Your task to perform on an android device: find which apps use the phone's location Image 0: 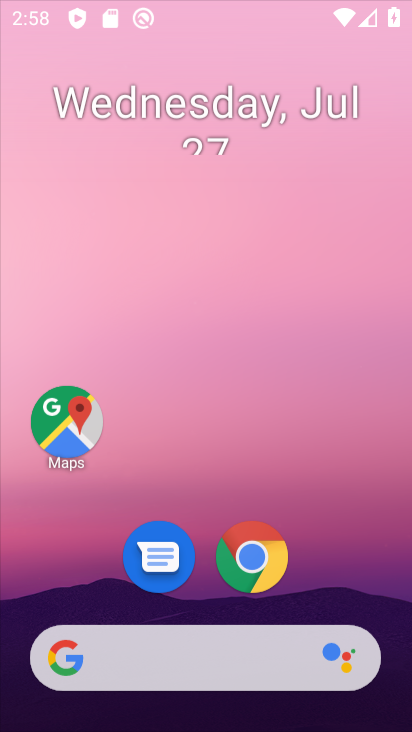
Step 0: drag from (182, 306) to (228, 49)
Your task to perform on an android device: find which apps use the phone's location Image 1: 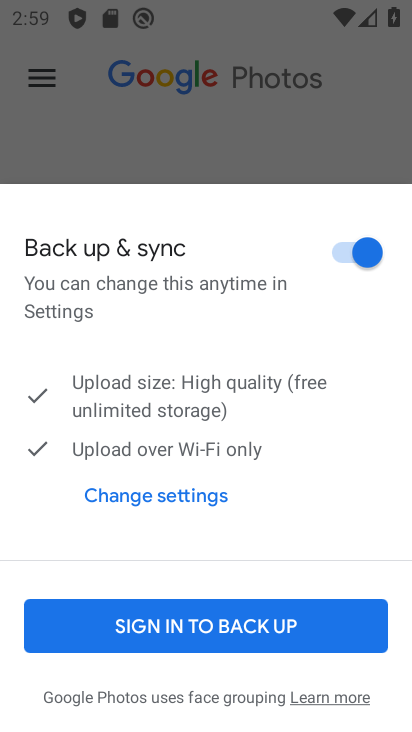
Step 1: press back button
Your task to perform on an android device: find which apps use the phone's location Image 2: 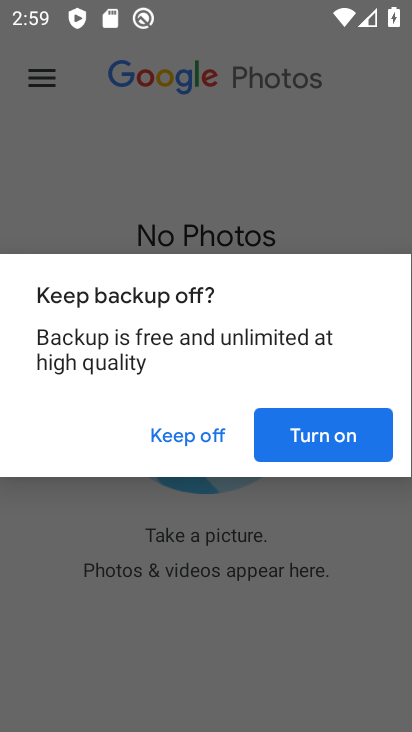
Step 2: press home button
Your task to perform on an android device: find which apps use the phone's location Image 3: 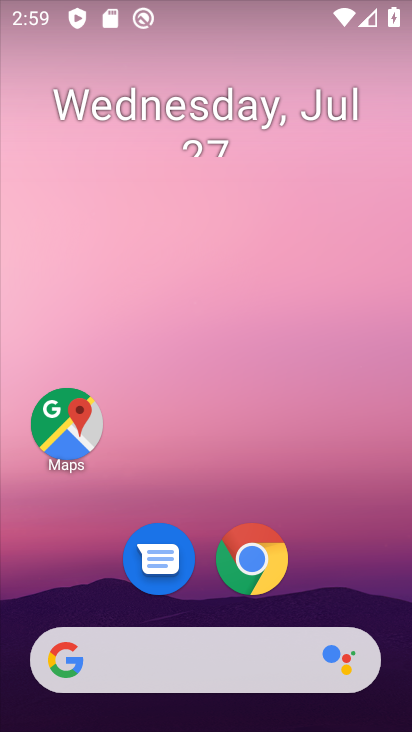
Step 3: drag from (83, 584) to (186, 52)
Your task to perform on an android device: find which apps use the phone's location Image 4: 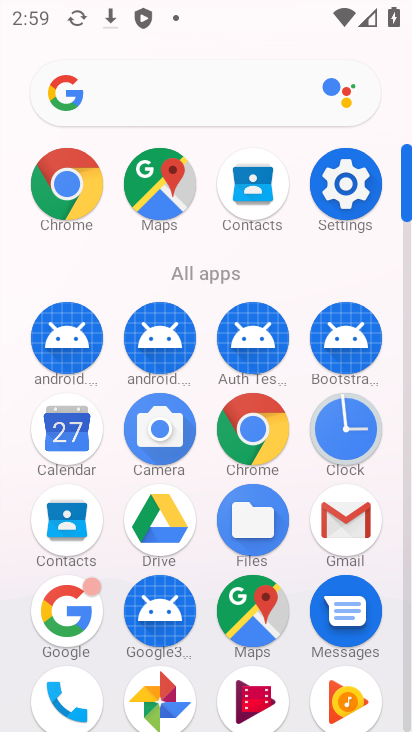
Step 4: click (340, 184)
Your task to perform on an android device: find which apps use the phone's location Image 5: 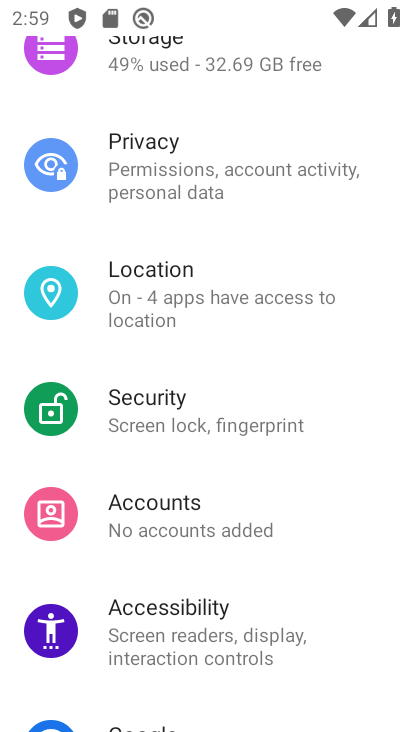
Step 5: click (203, 278)
Your task to perform on an android device: find which apps use the phone's location Image 6: 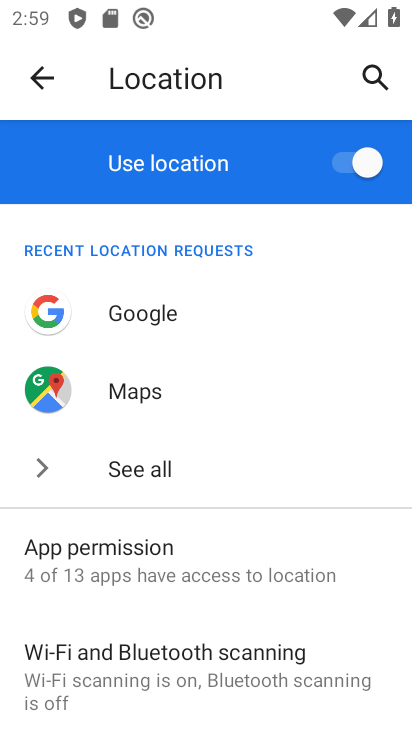
Step 6: click (158, 579)
Your task to perform on an android device: find which apps use the phone's location Image 7: 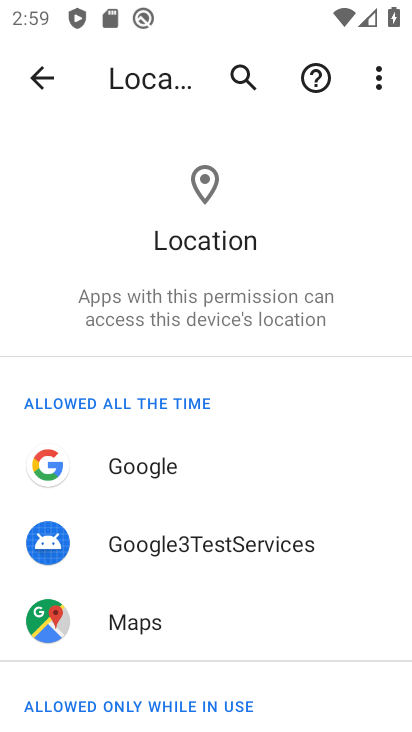
Step 7: task complete